Your task to perform on an android device: toggle javascript in the chrome app Image 0: 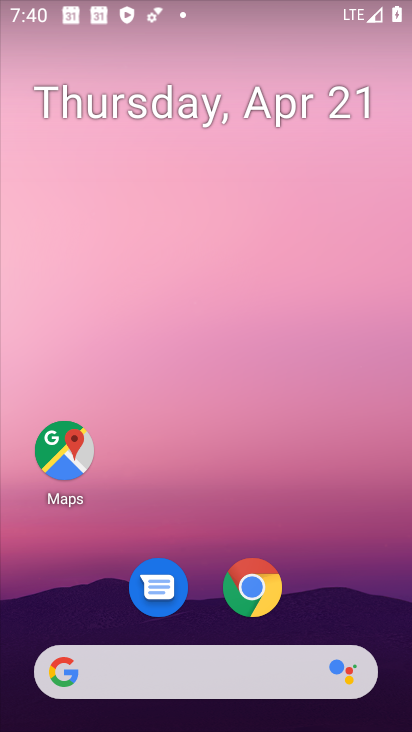
Step 0: drag from (383, 502) to (359, 161)
Your task to perform on an android device: toggle javascript in the chrome app Image 1: 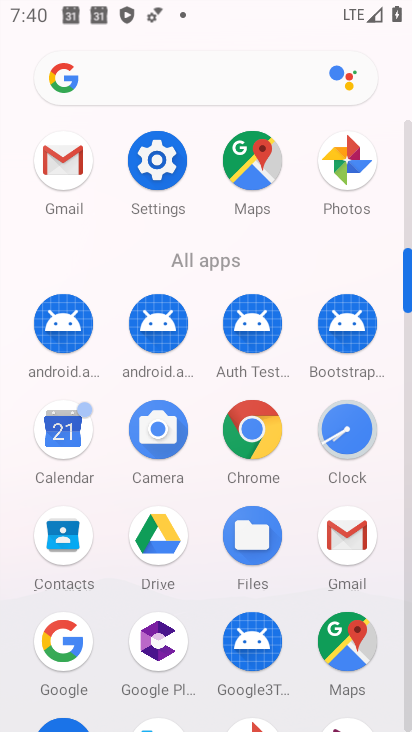
Step 1: click (258, 436)
Your task to perform on an android device: toggle javascript in the chrome app Image 2: 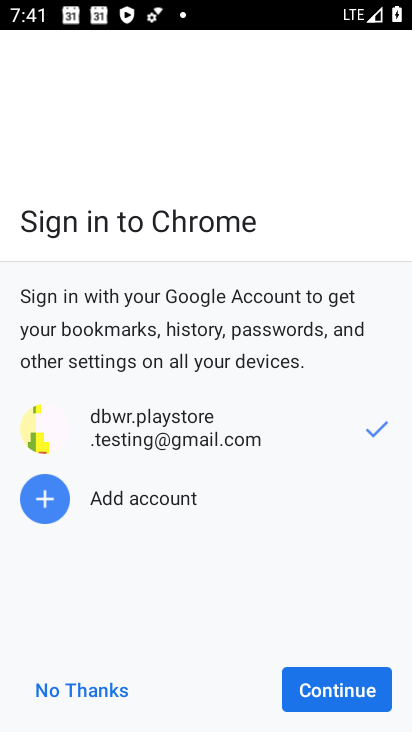
Step 2: click (344, 697)
Your task to perform on an android device: toggle javascript in the chrome app Image 3: 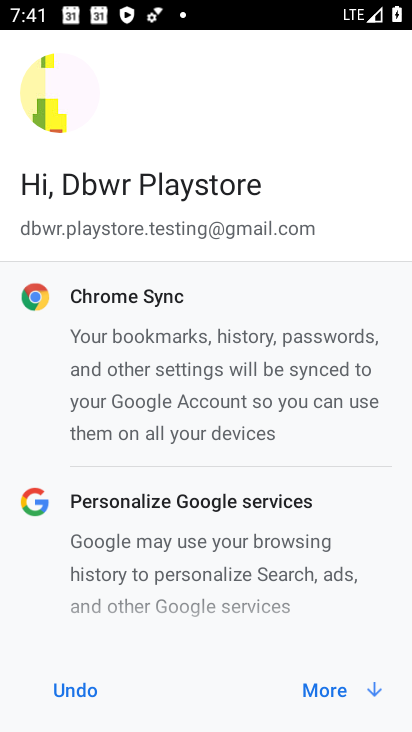
Step 3: click (324, 678)
Your task to perform on an android device: toggle javascript in the chrome app Image 4: 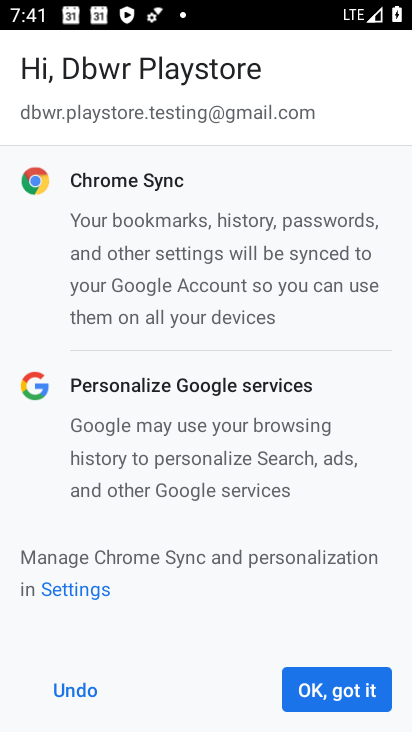
Step 4: click (324, 680)
Your task to perform on an android device: toggle javascript in the chrome app Image 5: 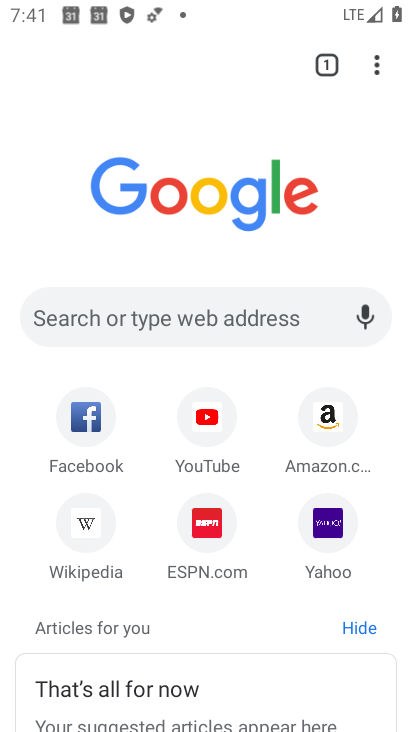
Step 5: click (374, 61)
Your task to perform on an android device: toggle javascript in the chrome app Image 6: 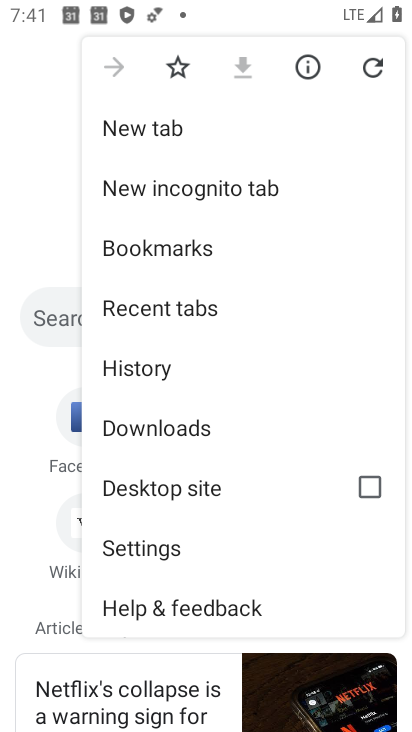
Step 6: click (145, 538)
Your task to perform on an android device: toggle javascript in the chrome app Image 7: 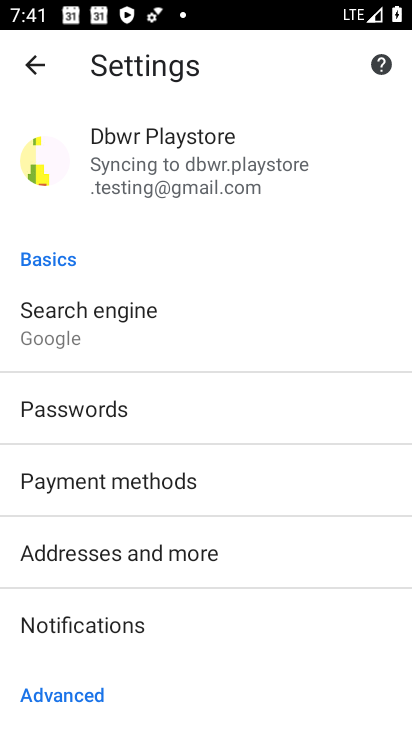
Step 7: drag from (315, 311) to (309, 221)
Your task to perform on an android device: toggle javascript in the chrome app Image 8: 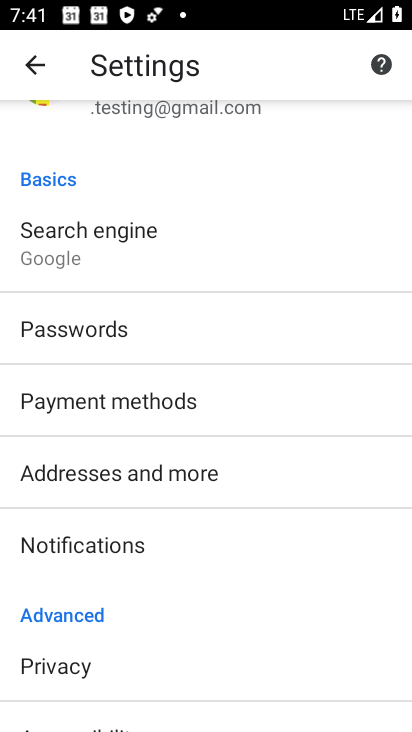
Step 8: drag from (293, 463) to (300, 290)
Your task to perform on an android device: toggle javascript in the chrome app Image 9: 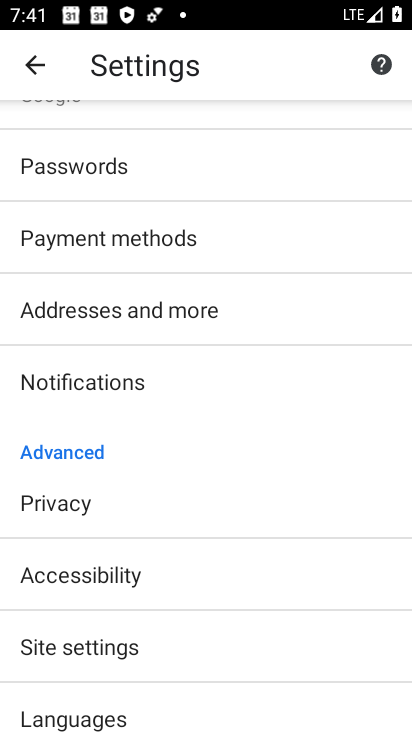
Step 9: click (77, 647)
Your task to perform on an android device: toggle javascript in the chrome app Image 10: 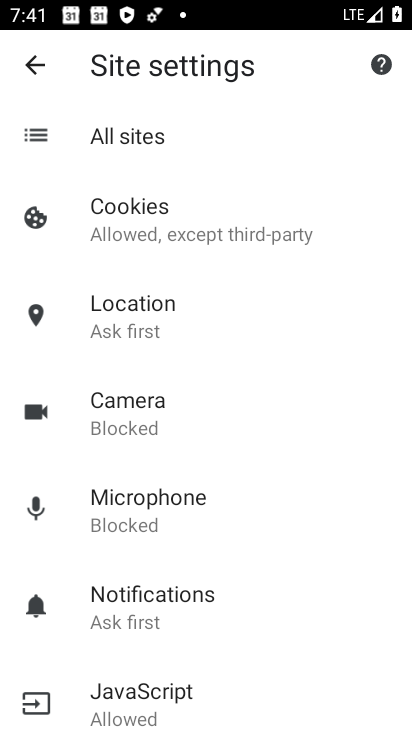
Step 10: click (138, 694)
Your task to perform on an android device: toggle javascript in the chrome app Image 11: 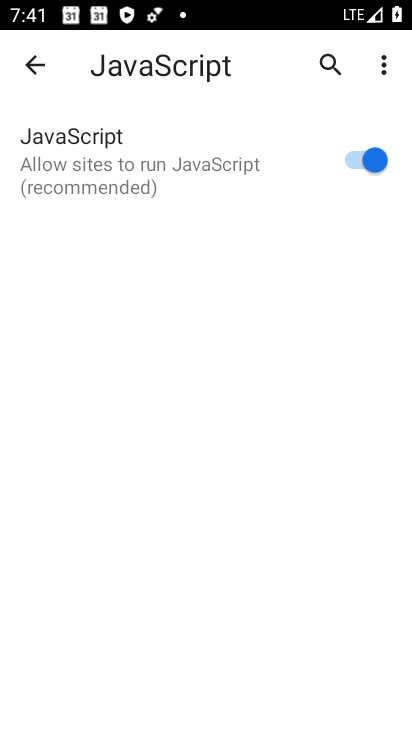
Step 11: click (349, 157)
Your task to perform on an android device: toggle javascript in the chrome app Image 12: 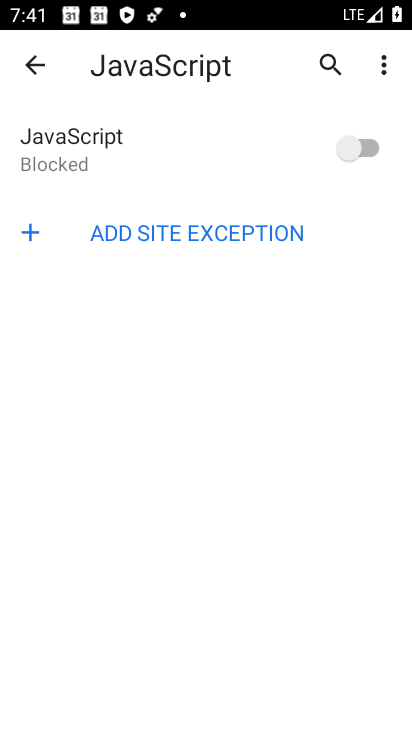
Step 12: task complete